Your task to perform on an android device: star an email in the gmail app Image 0: 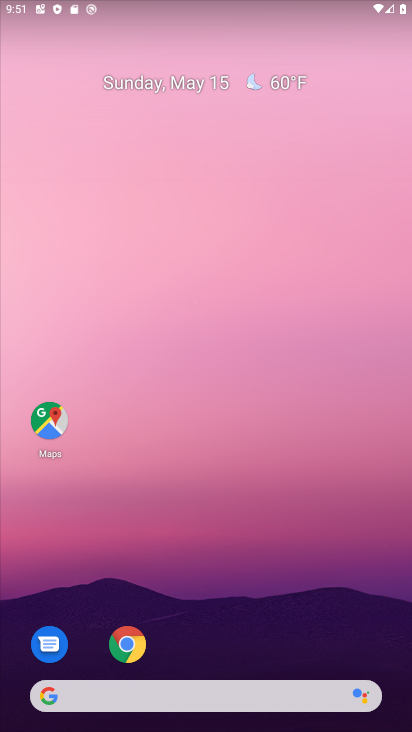
Step 0: drag from (215, 659) to (196, 281)
Your task to perform on an android device: star an email in the gmail app Image 1: 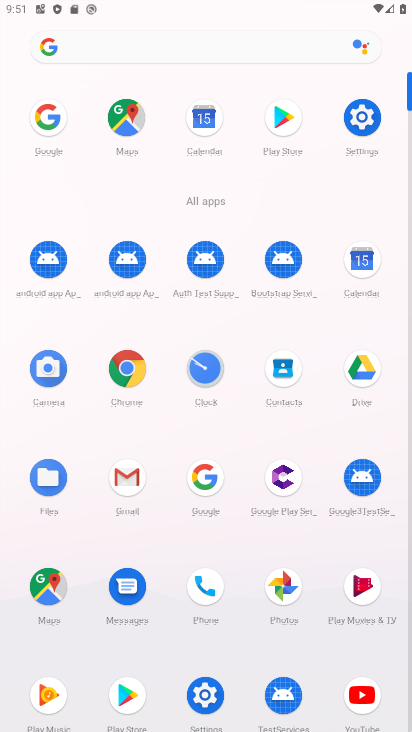
Step 1: click (129, 470)
Your task to perform on an android device: star an email in the gmail app Image 2: 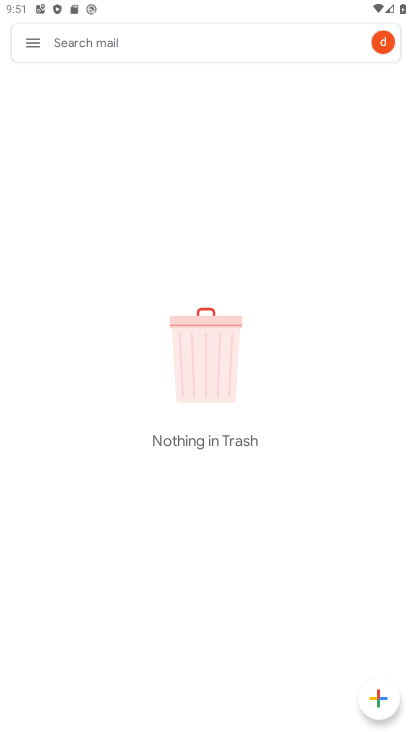
Step 2: click (28, 47)
Your task to perform on an android device: star an email in the gmail app Image 3: 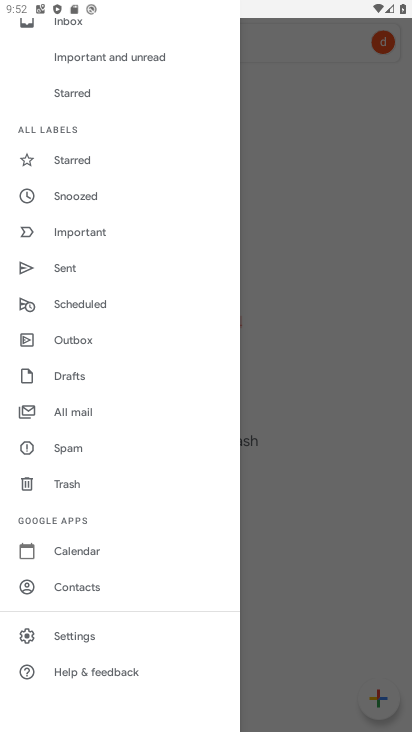
Step 3: drag from (147, 52) to (145, 395)
Your task to perform on an android device: star an email in the gmail app Image 4: 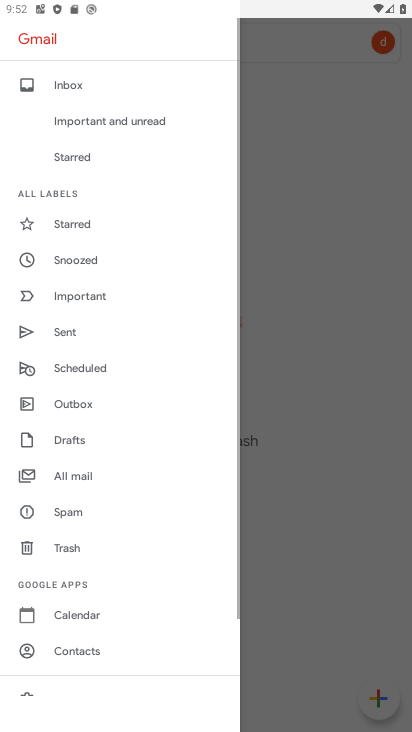
Step 4: click (68, 75)
Your task to perform on an android device: star an email in the gmail app Image 5: 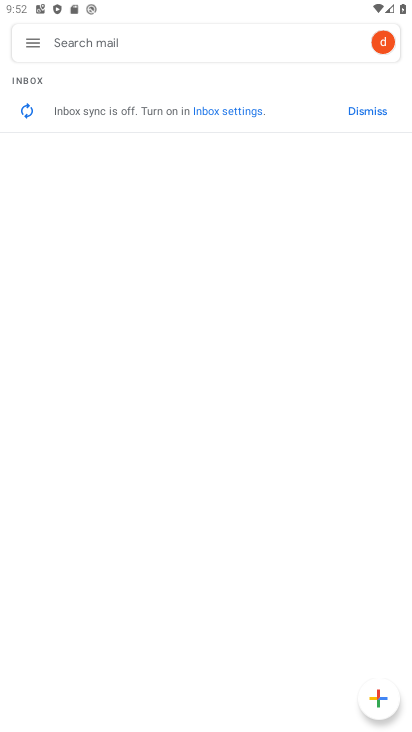
Step 5: task complete